Your task to perform on an android device: Go to privacy settings Image 0: 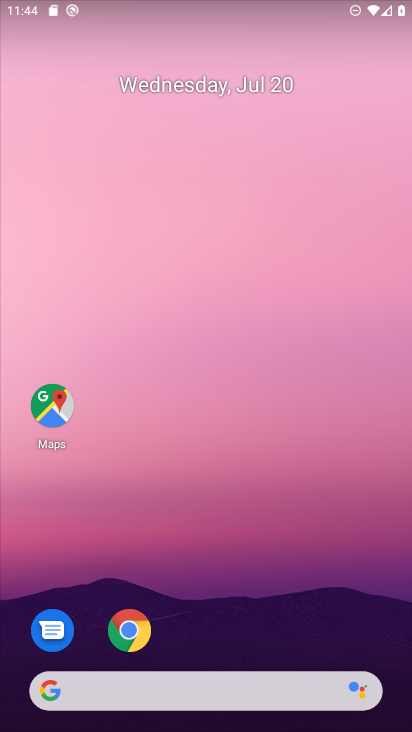
Step 0: drag from (220, 505) to (222, 157)
Your task to perform on an android device: Go to privacy settings Image 1: 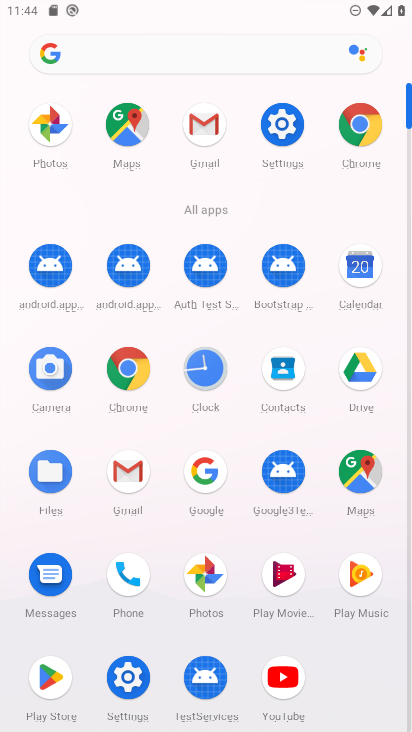
Step 1: click (130, 683)
Your task to perform on an android device: Go to privacy settings Image 2: 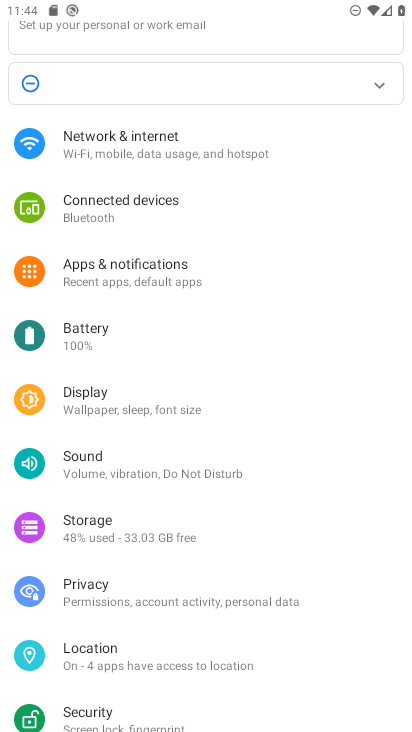
Step 2: click (113, 598)
Your task to perform on an android device: Go to privacy settings Image 3: 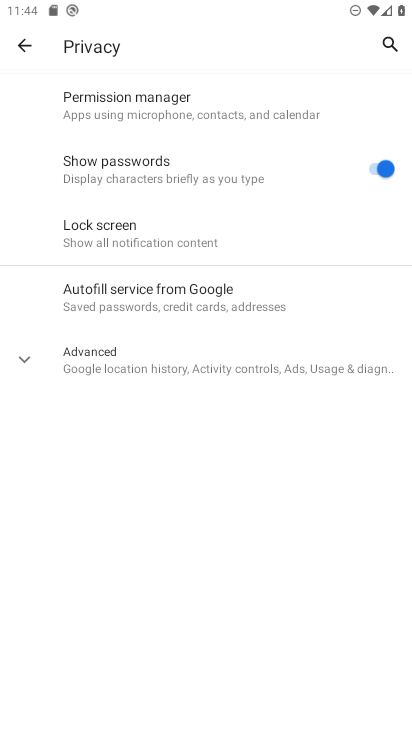
Step 3: task complete